Your task to perform on an android device: turn smart compose on in the gmail app Image 0: 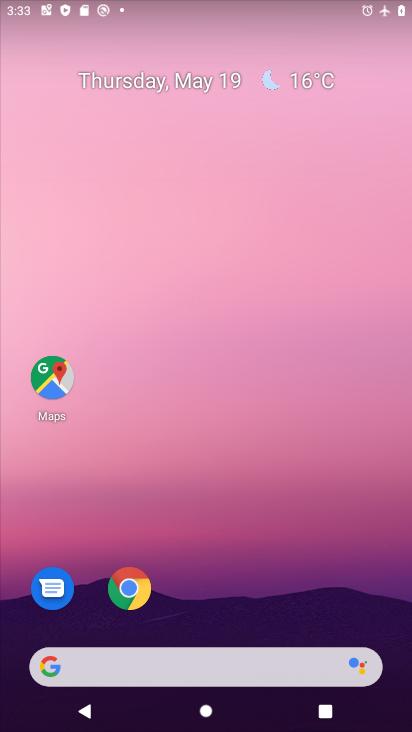
Step 0: drag from (248, 409) to (222, 90)
Your task to perform on an android device: turn smart compose on in the gmail app Image 1: 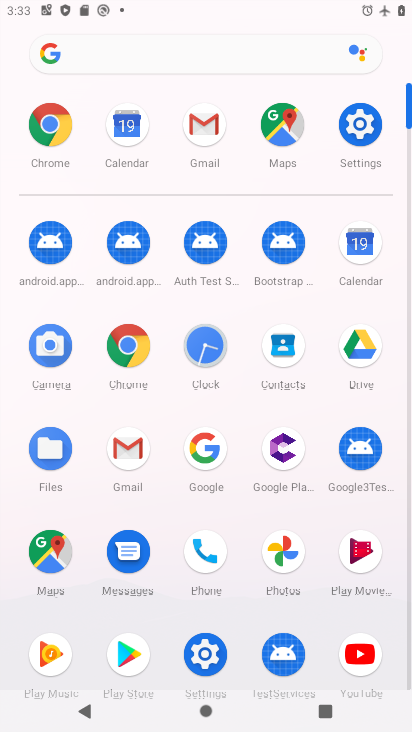
Step 1: click (209, 121)
Your task to perform on an android device: turn smart compose on in the gmail app Image 2: 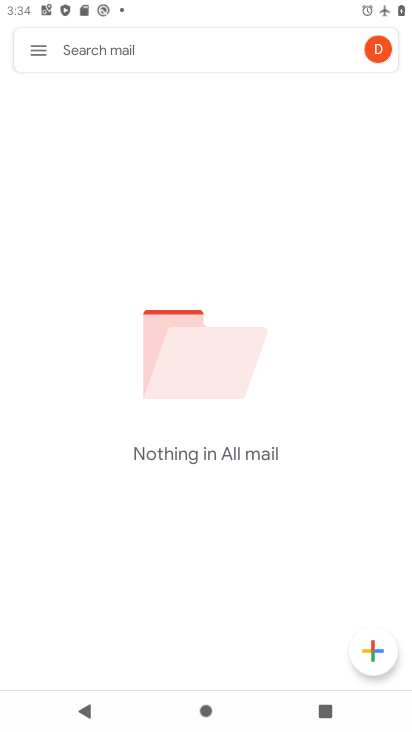
Step 2: click (41, 43)
Your task to perform on an android device: turn smart compose on in the gmail app Image 3: 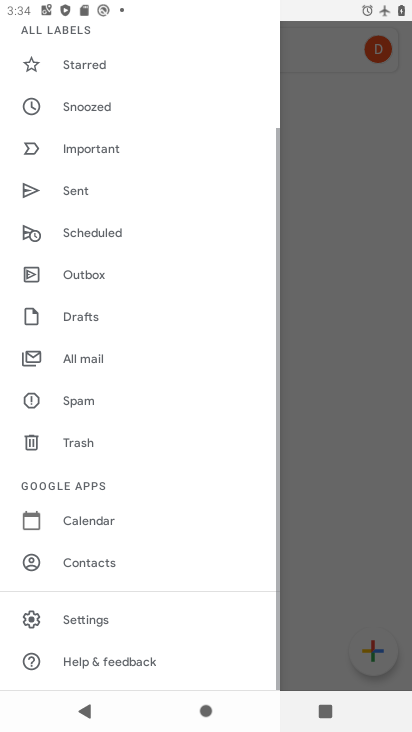
Step 3: click (88, 626)
Your task to perform on an android device: turn smart compose on in the gmail app Image 4: 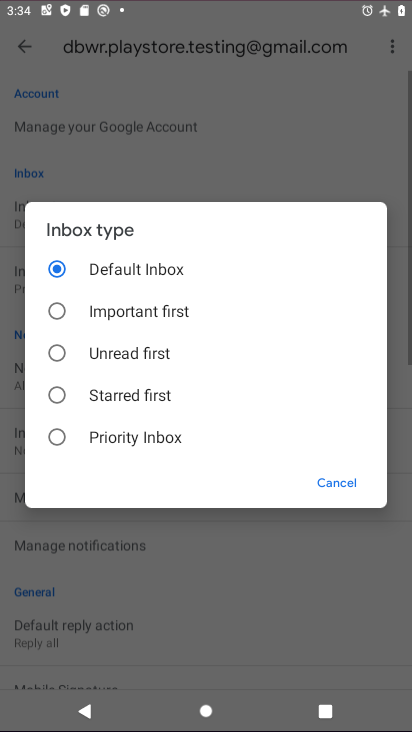
Step 4: drag from (124, 593) to (171, 239)
Your task to perform on an android device: turn smart compose on in the gmail app Image 5: 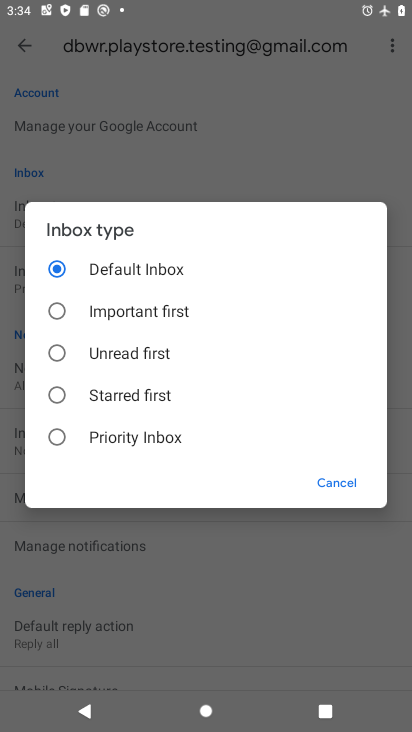
Step 5: click (333, 487)
Your task to perform on an android device: turn smart compose on in the gmail app Image 6: 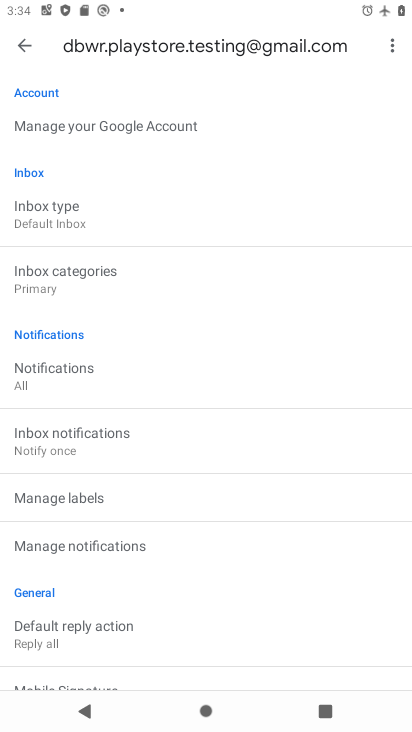
Step 6: task complete